Your task to perform on an android device: Check the weather Image 0: 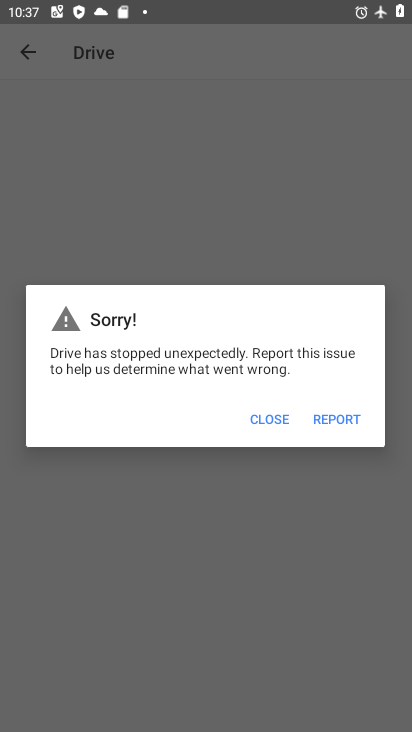
Step 0: press home button
Your task to perform on an android device: Check the weather Image 1: 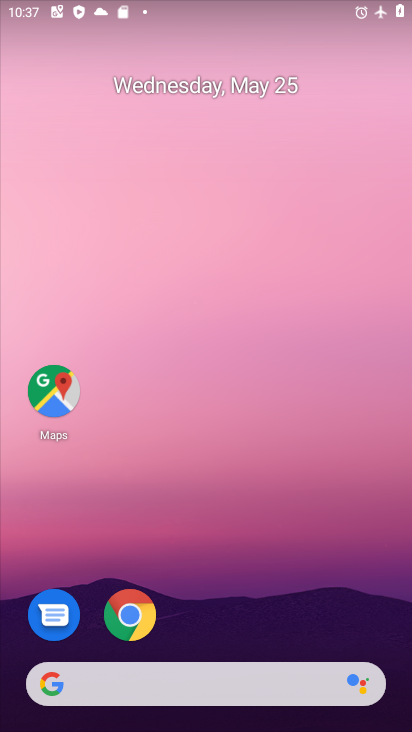
Step 1: click (142, 675)
Your task to perform on an android device: Check the weather Image 2: 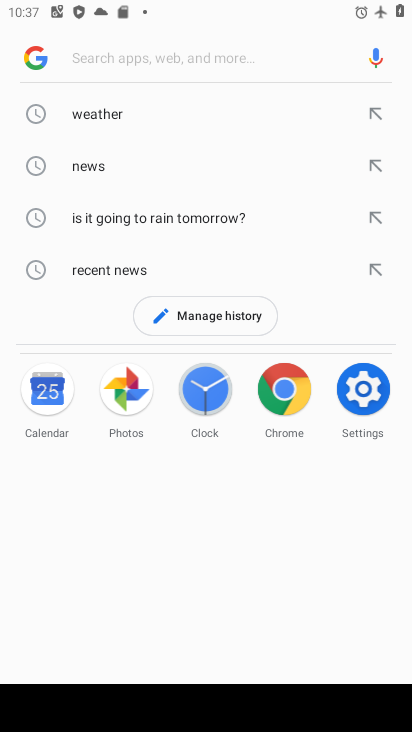
Step 2: click (78, 112)
Your task to perform on an android device: Check the weather Image 3: 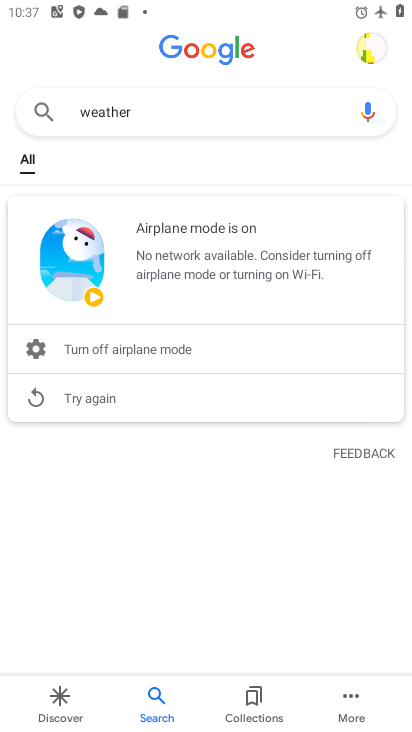
Step 3: task complete